Your task to perform on an android device: Open calendar and show me the third week of next month Image 0: 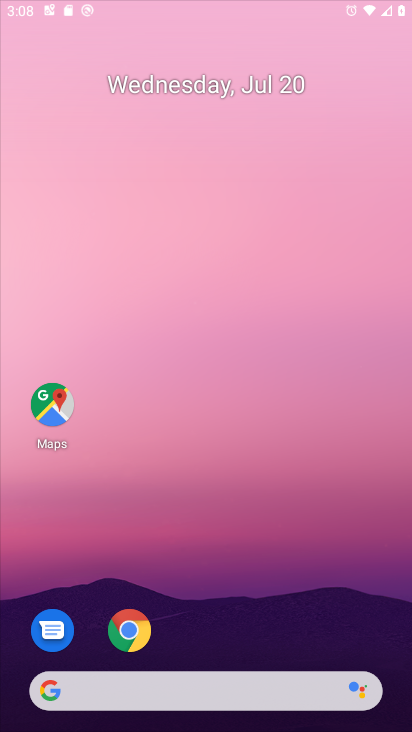
Step 0: drag from (222, 546) to (253, 256)
Your task to perform on an android device: Open calendar and show me the third week of next month Image 1: 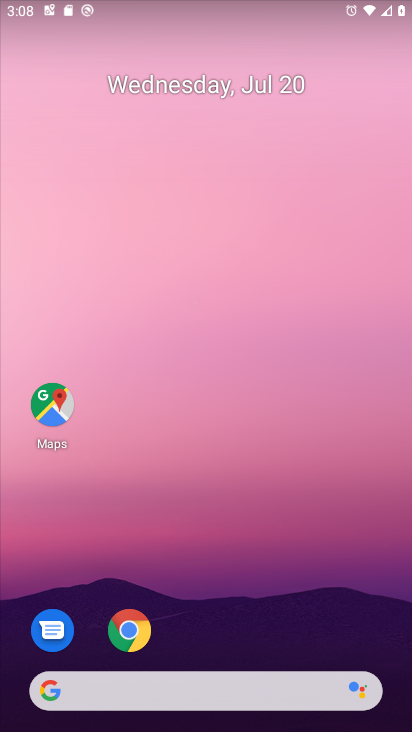
Step 1: drag from (140, 670) to (243, 237)
Your task to perform on an android device: Open calendar and show me the third week of next month Image 2: 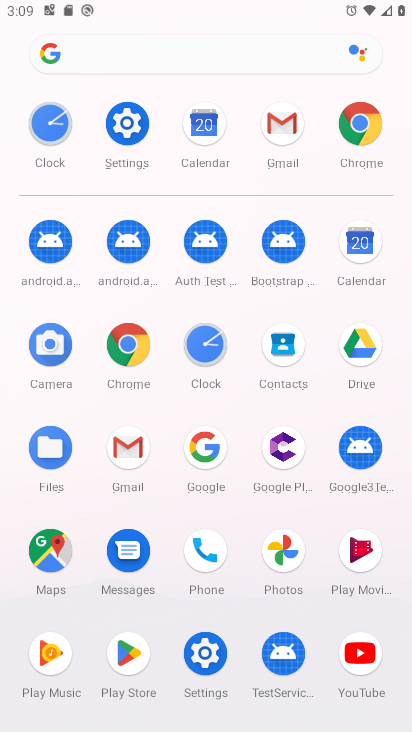
Step 2: click (363, 270)
Your task to perform on an android device: Open calendar and show me the third week of next month Image 3: 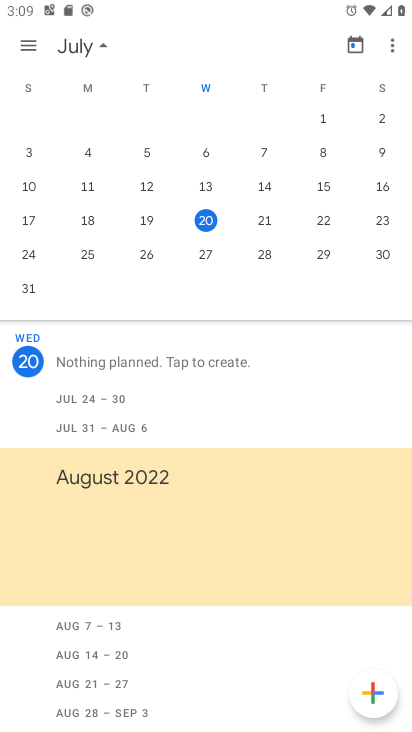
Step 3: drag from (297, 199) to (3, 208)
Your task to perform on an android device: Open calendar and show me the third week of next month Image 4: 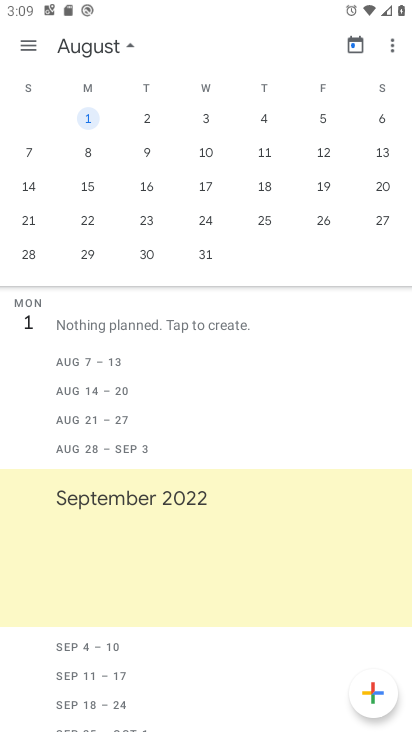
Step 4: click (89, 196)
Your task to perform on an android device: Open calendar and show me the third week of next month Image 5: 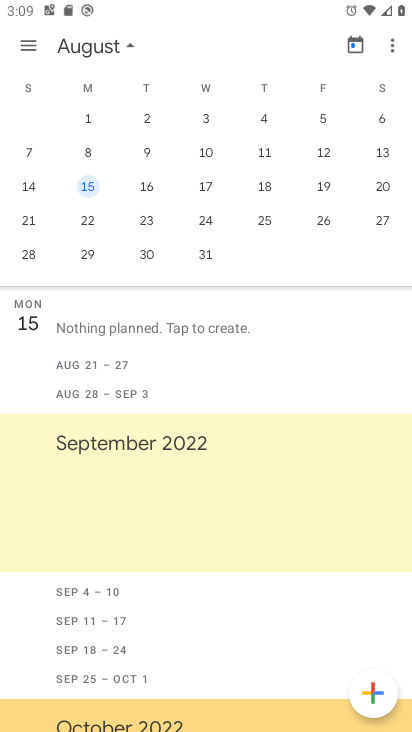
Step 5: task complete